Your task to perform on an android device: set the stopwatch Image 0: 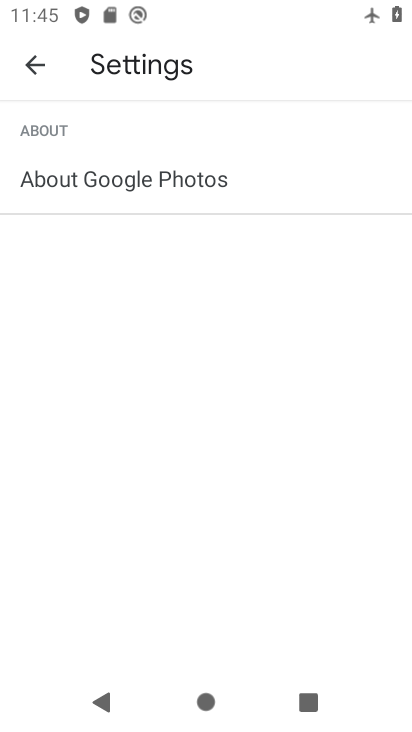
Step 0: press home button
Your task to perform on an android device: set the stopwatch Image 1: 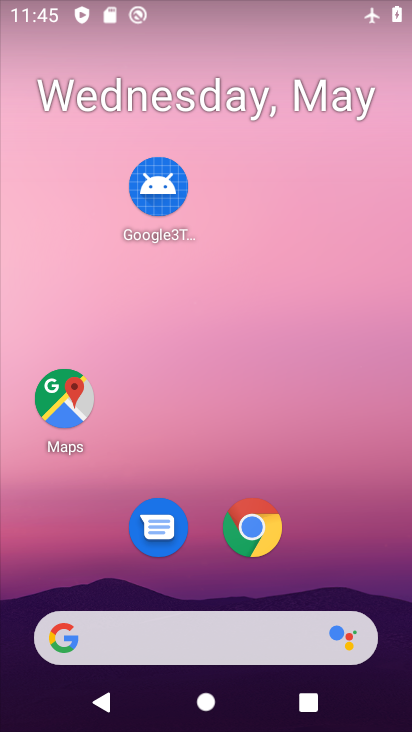
Step 1: drag from (208, 595) to (267, 99)
Your task to perform on an android device: set the stopwatch Image 2: 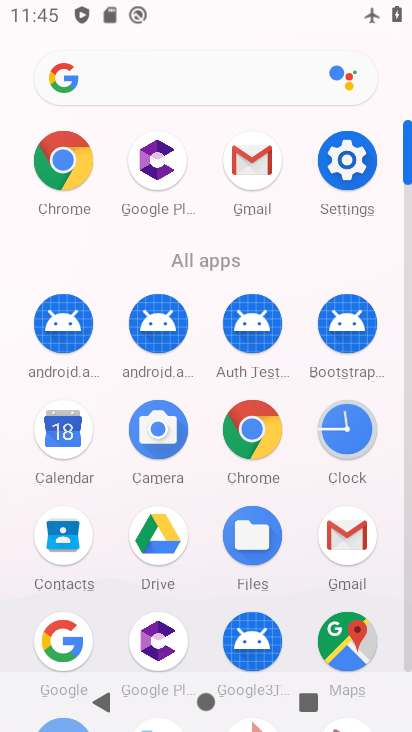
Step 2: click (344, 421)
Your task to perform on an android device: set the stopwatch Image 3: 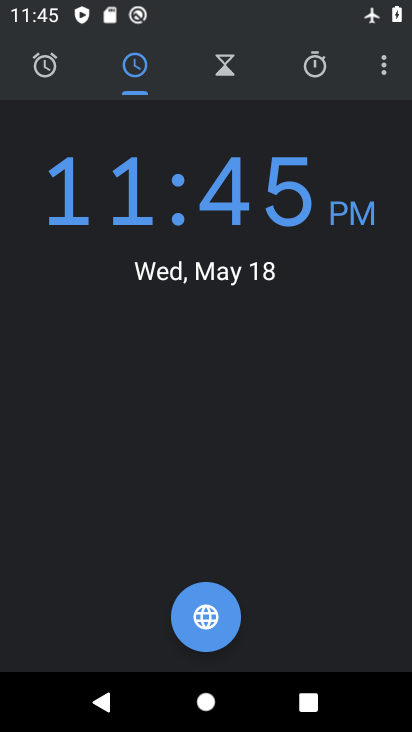
Step 3: click (314, 65)
Your task to perform on an android device: set the stopwatch Image 4: 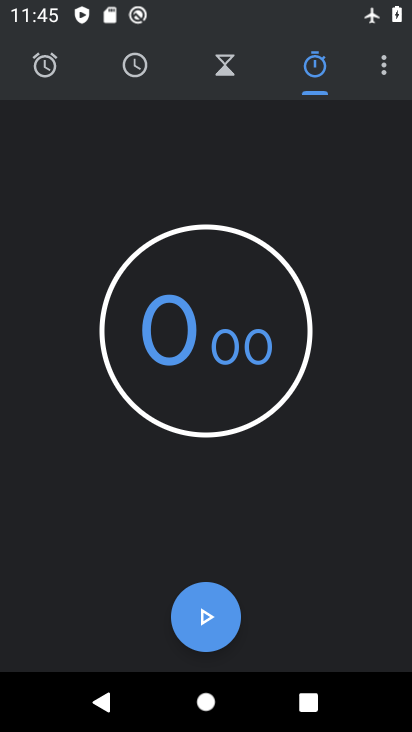
Step 4: click (204, 609)
Your task to perform on an android device: set the stopwatch Image 5: 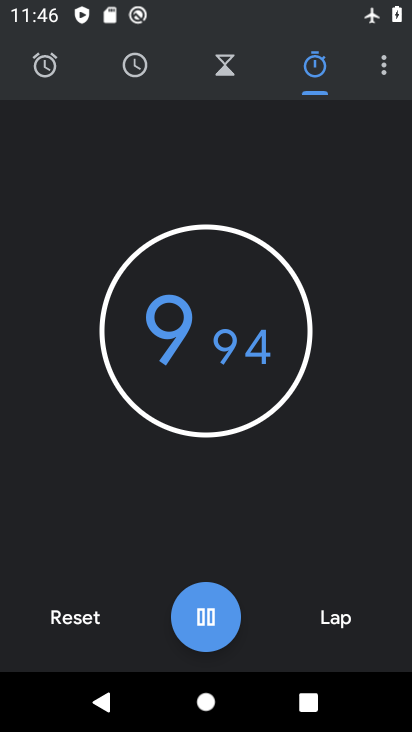
Step 5: task complete